Your task to perform on an android device: Show the shopping cart on costco.com. Image 0: 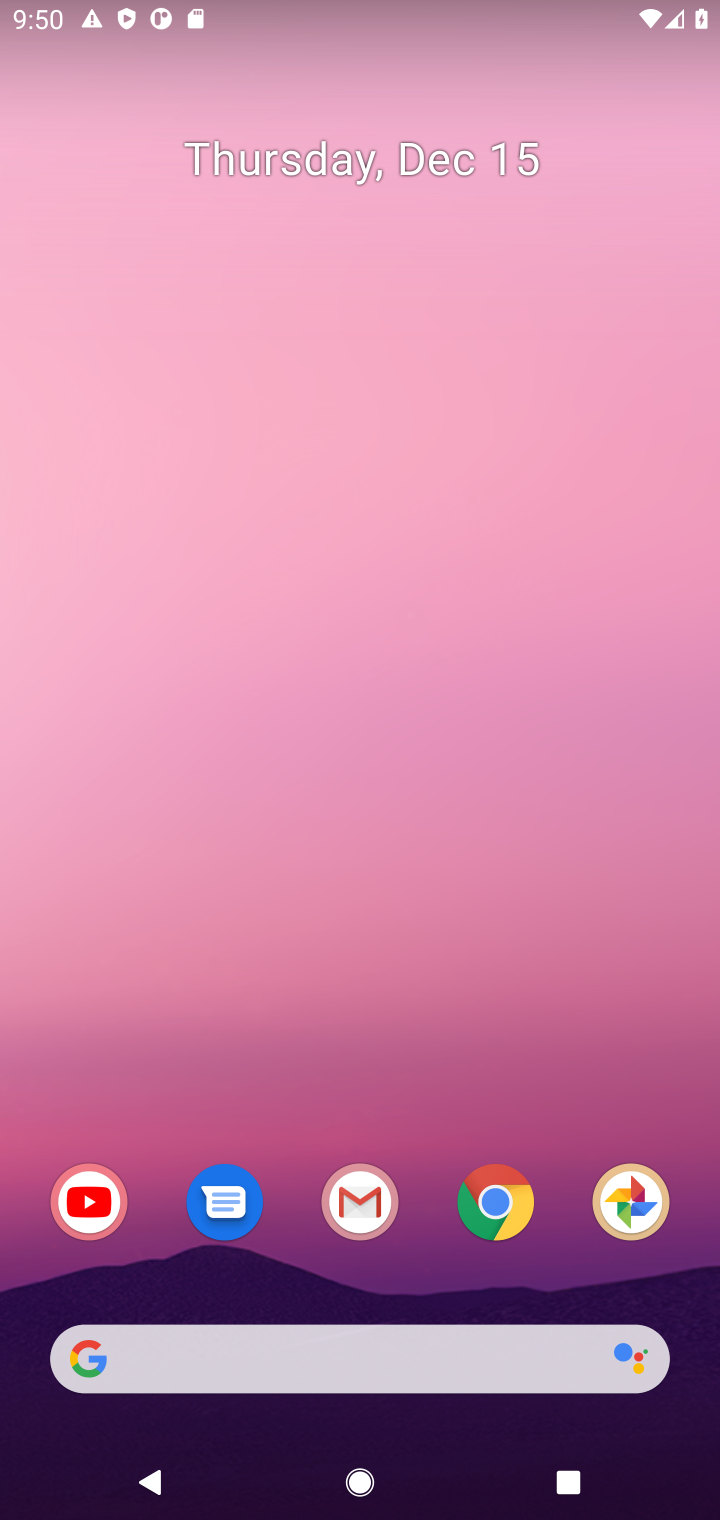
Step 0: click (506, 1208)
Your task to perform on an android device: Show the shopping cart on costco.com. Image 1: 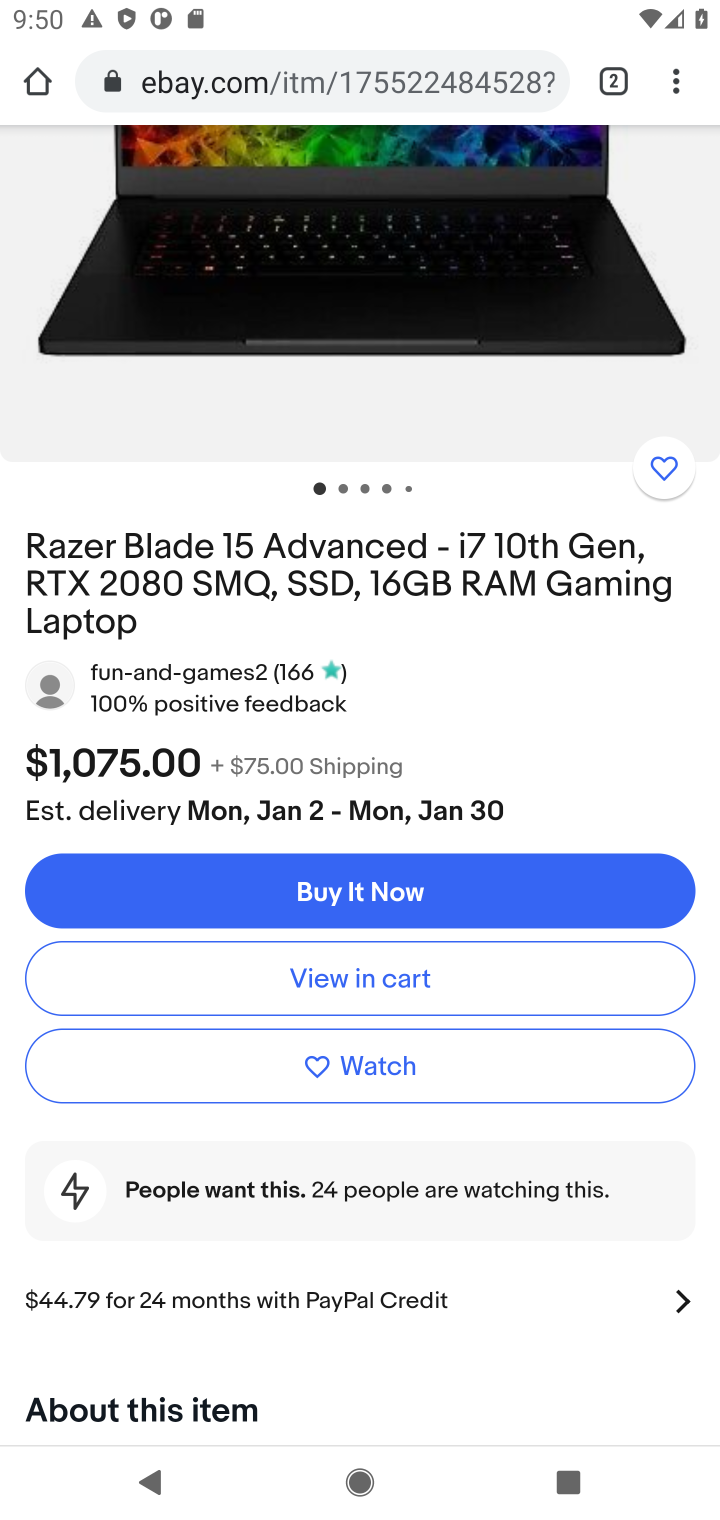
Step 1: click (294, 91)
Your task to perform on an android device: Show the shopping cart on costco.com. Image 2: 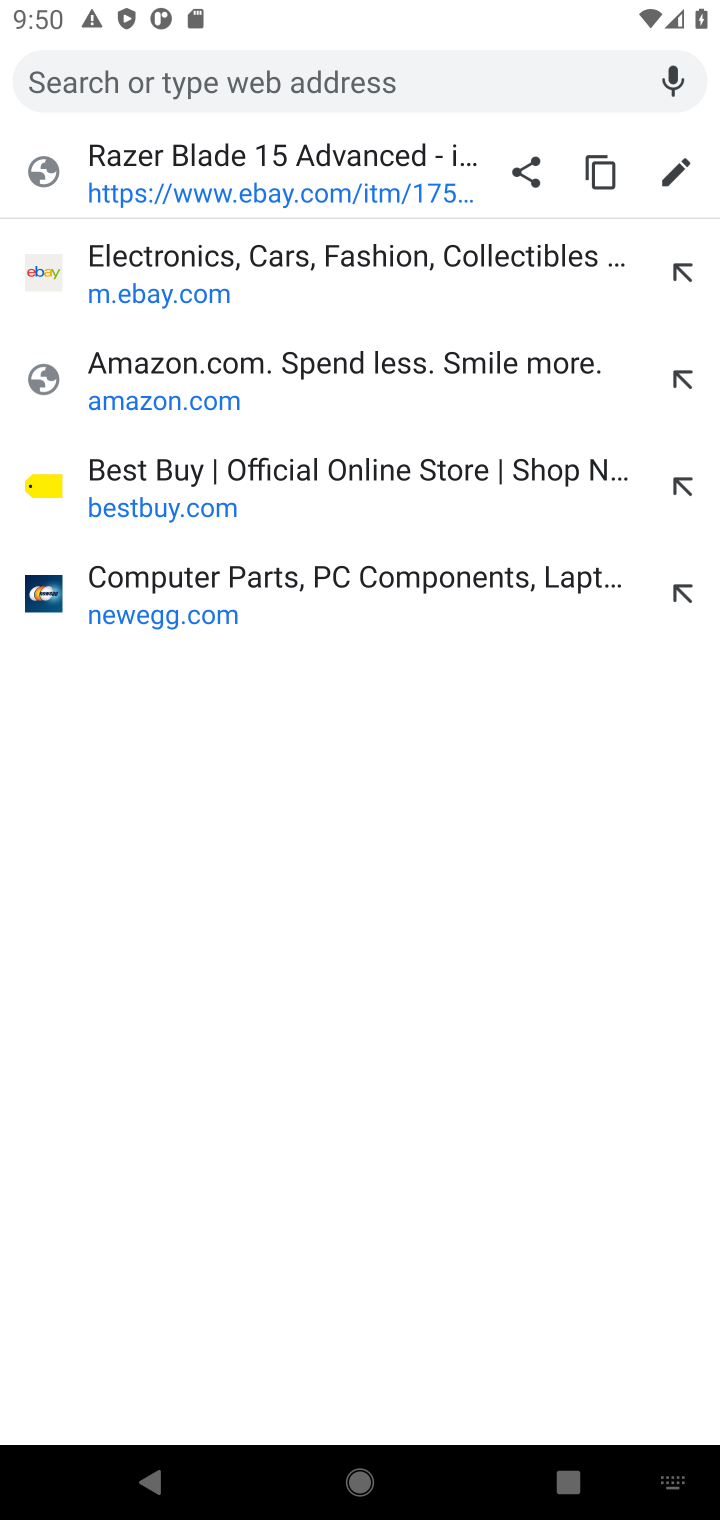
Step 2: type "costco.com"
Your task to perform on an android device: Show the shopping cart on costco.com. Image 3: 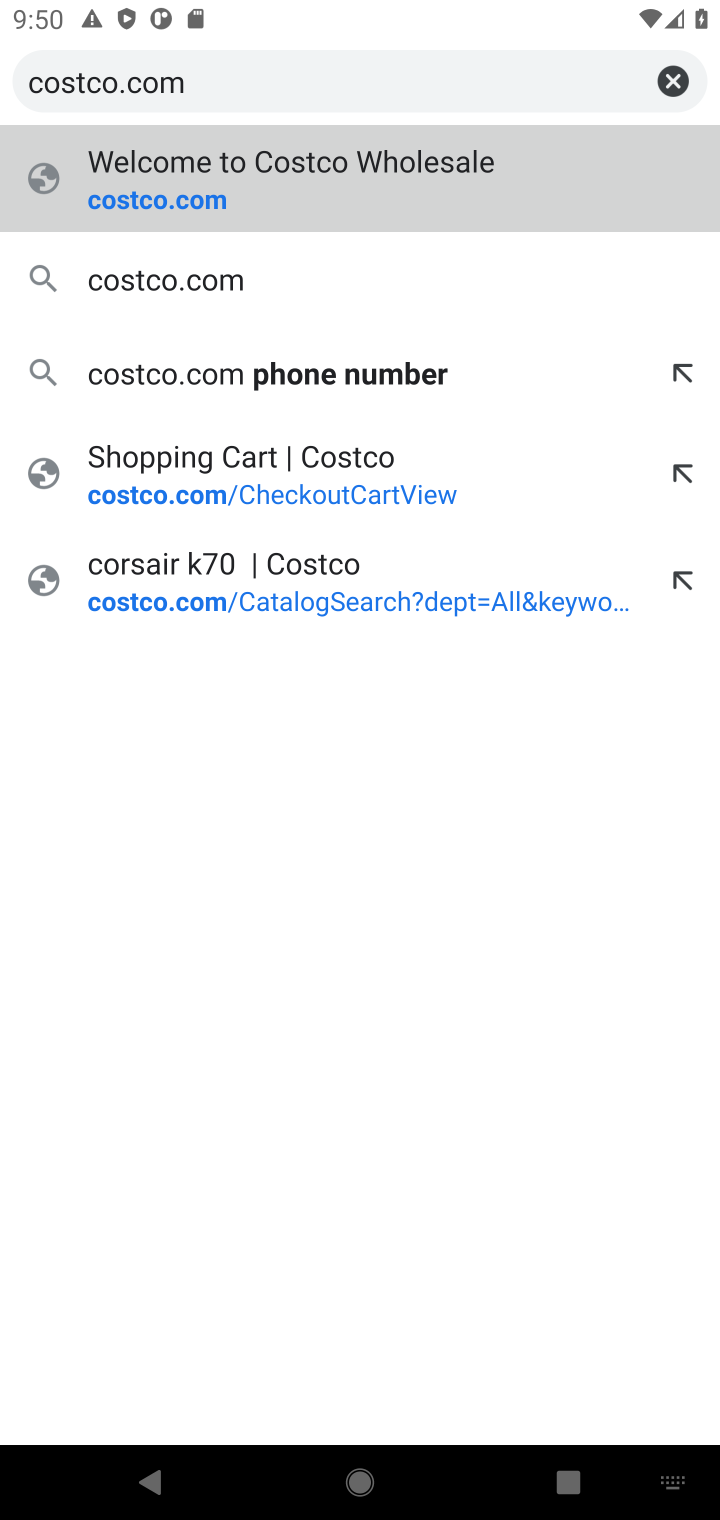
Step 3: click (164, 195)
Your task to perform on an android device: Show the shopping cart on costco.com. Image 4: 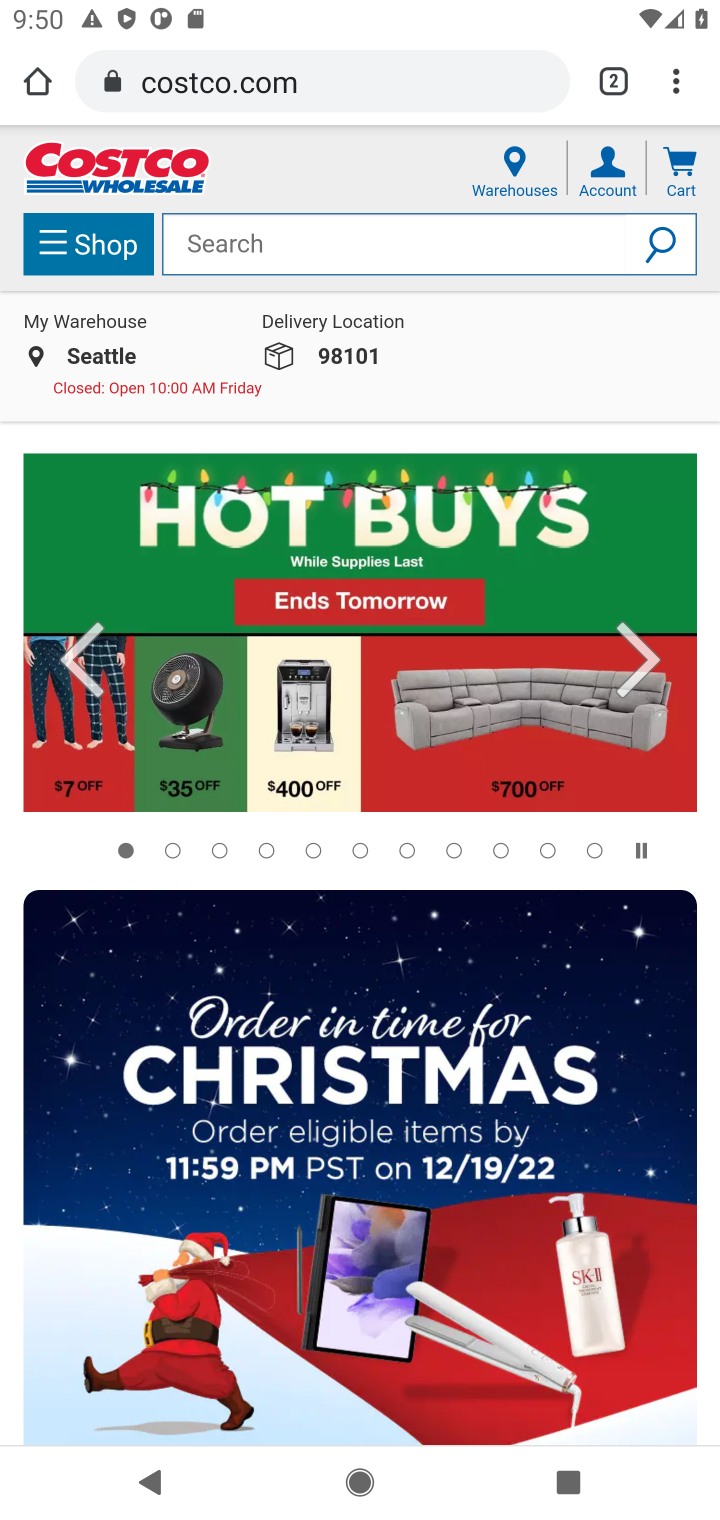
Step 4: click (671, 181)
Your task to perform on an android device: Show the shopping cart on costco.com. Image 5: 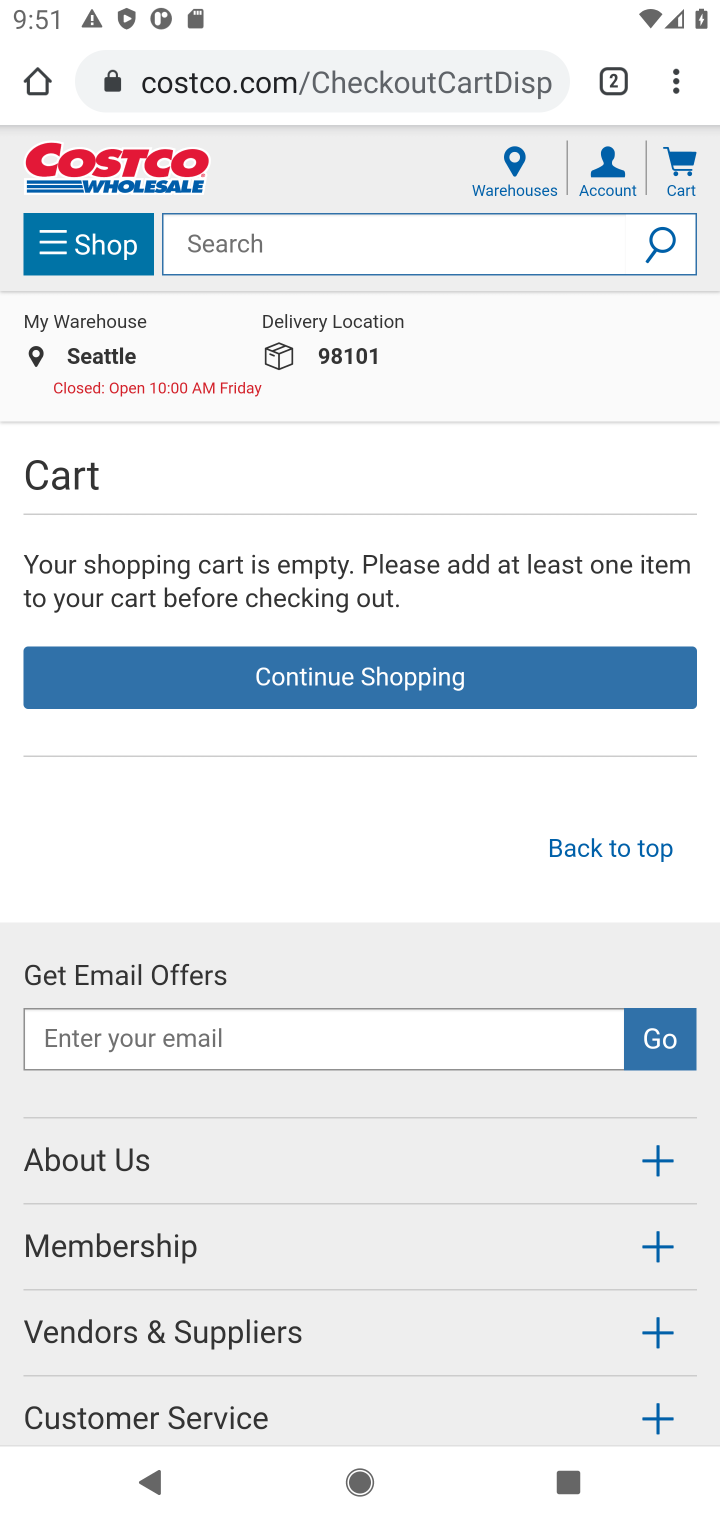
Step 5: task complete